Your task to perform on an android device: Go to Maps Image 0: 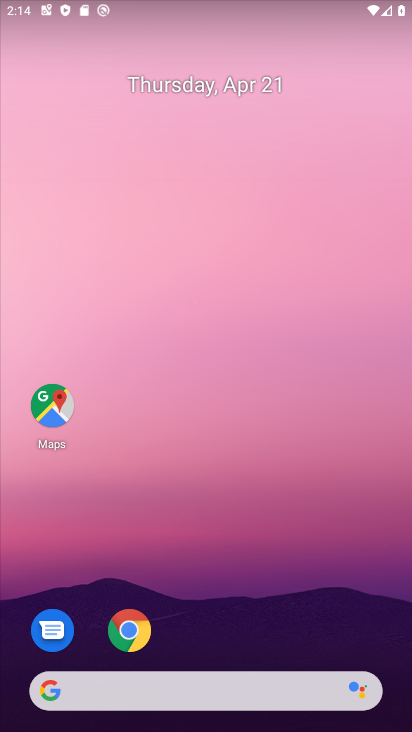
Step 0: drag from (354, 614) to (375, 156)
Your task to perform on an android device: Go to Maps Image 1: 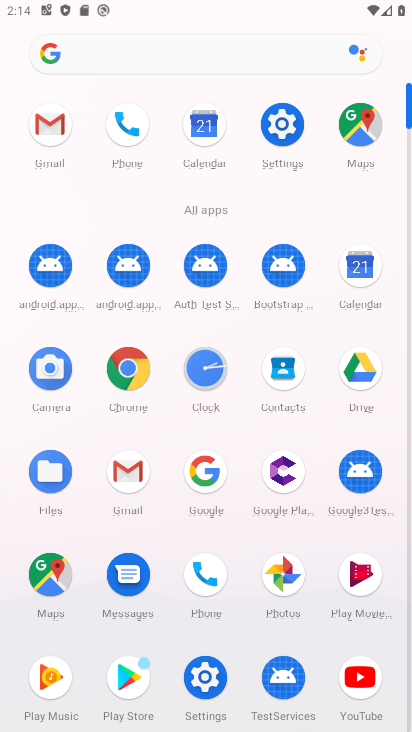
Step 1: click (54, 587)
Your task to perform on an android device: Go to Maps Image 2: 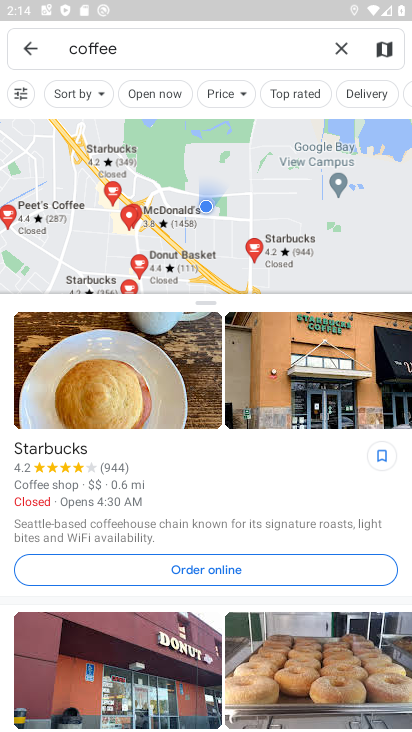
Step 2: task complete